Your task to perform on an android device: Set an alarm for 12pm Image 0: 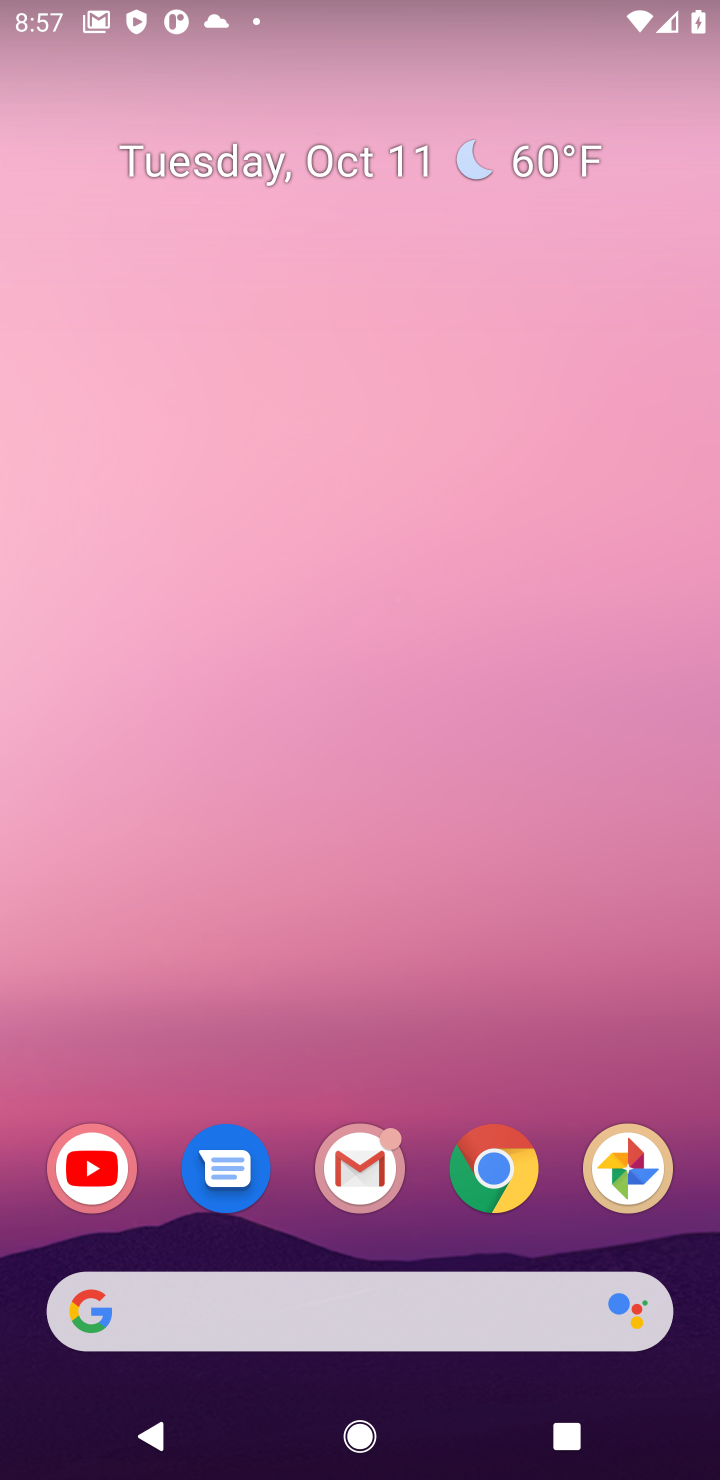
Step 0: press home button
Your task to perform on an android device: Set an alarm for 12pm Image 1: 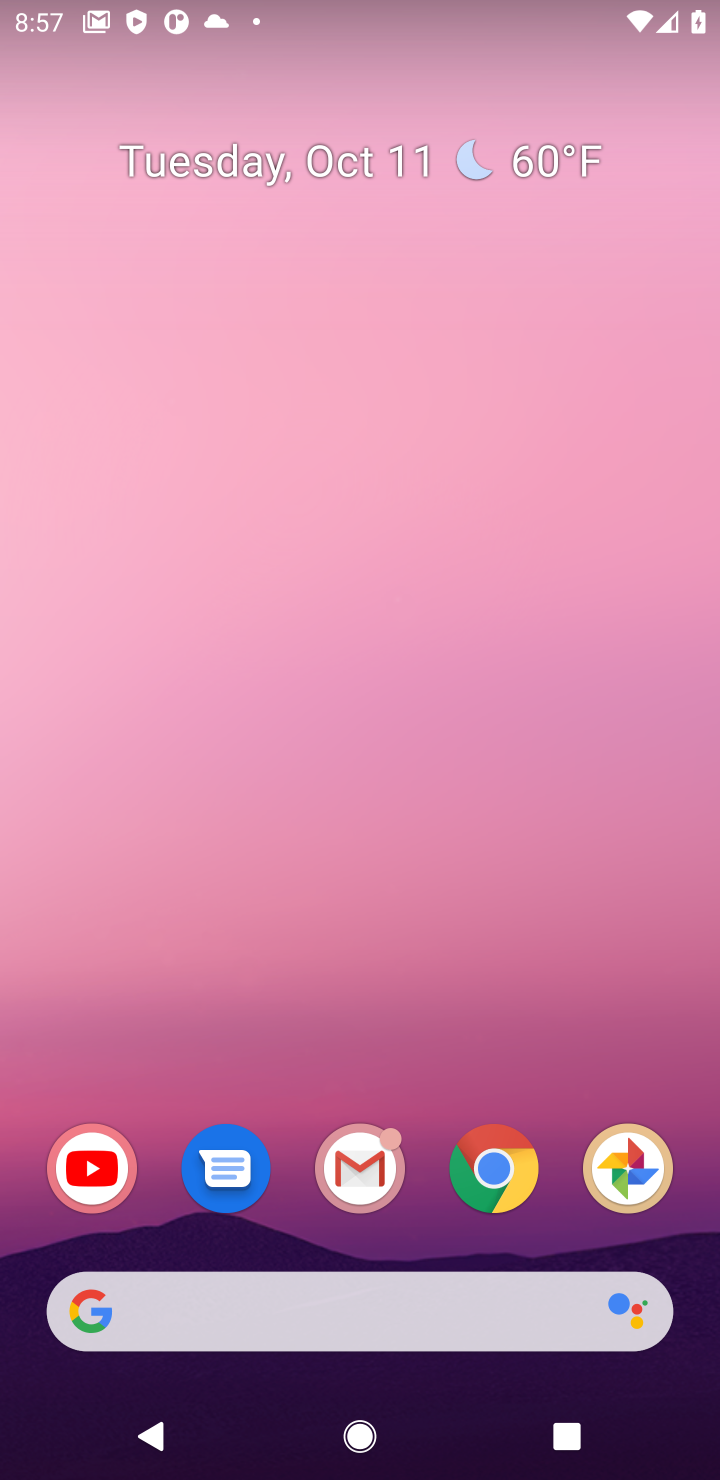
Step 1: drag from (295, 1029) to (363, 623)
Your task to perform on an android device: Set an alarm for 12pm Image 2: 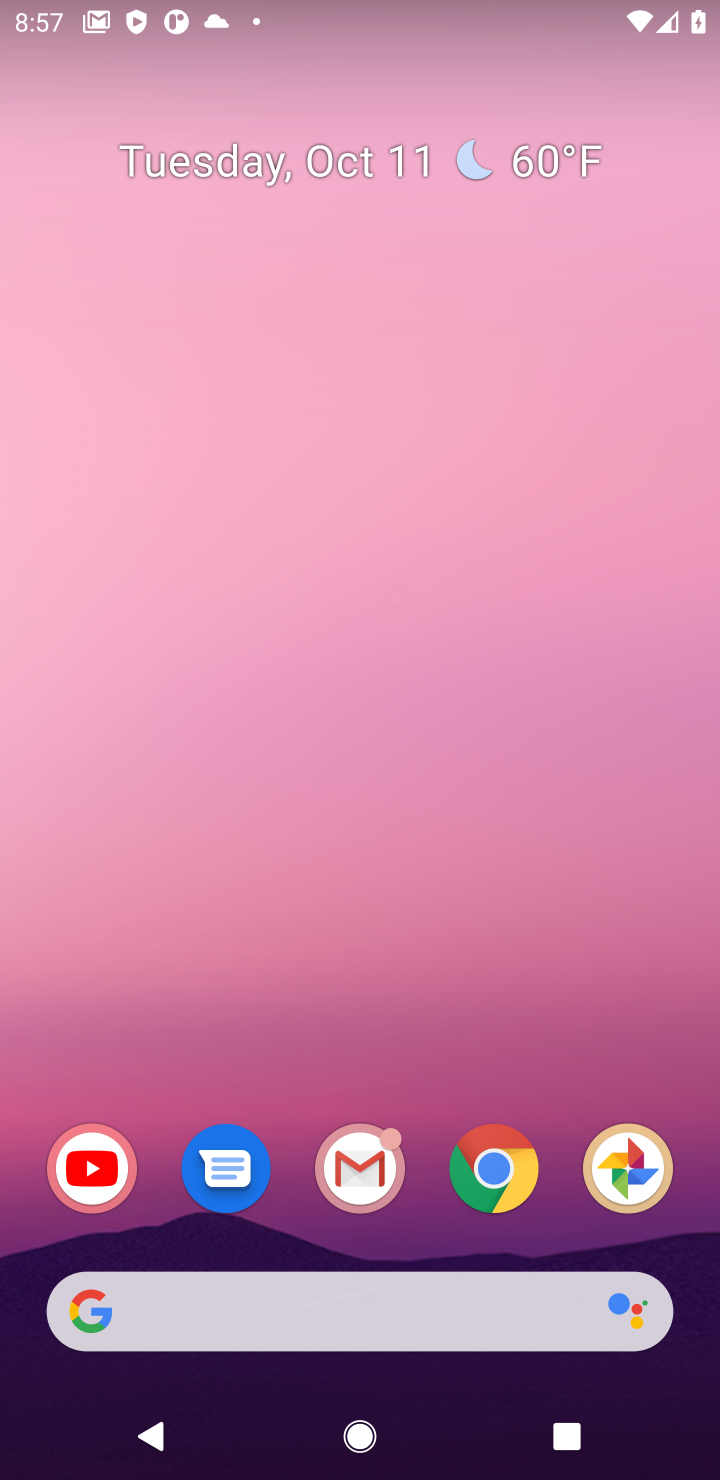
Step 2: drag from (254, 954) to (276, 382)
Your task to perform on an android device: Set an alarm for 12pm Image 3: 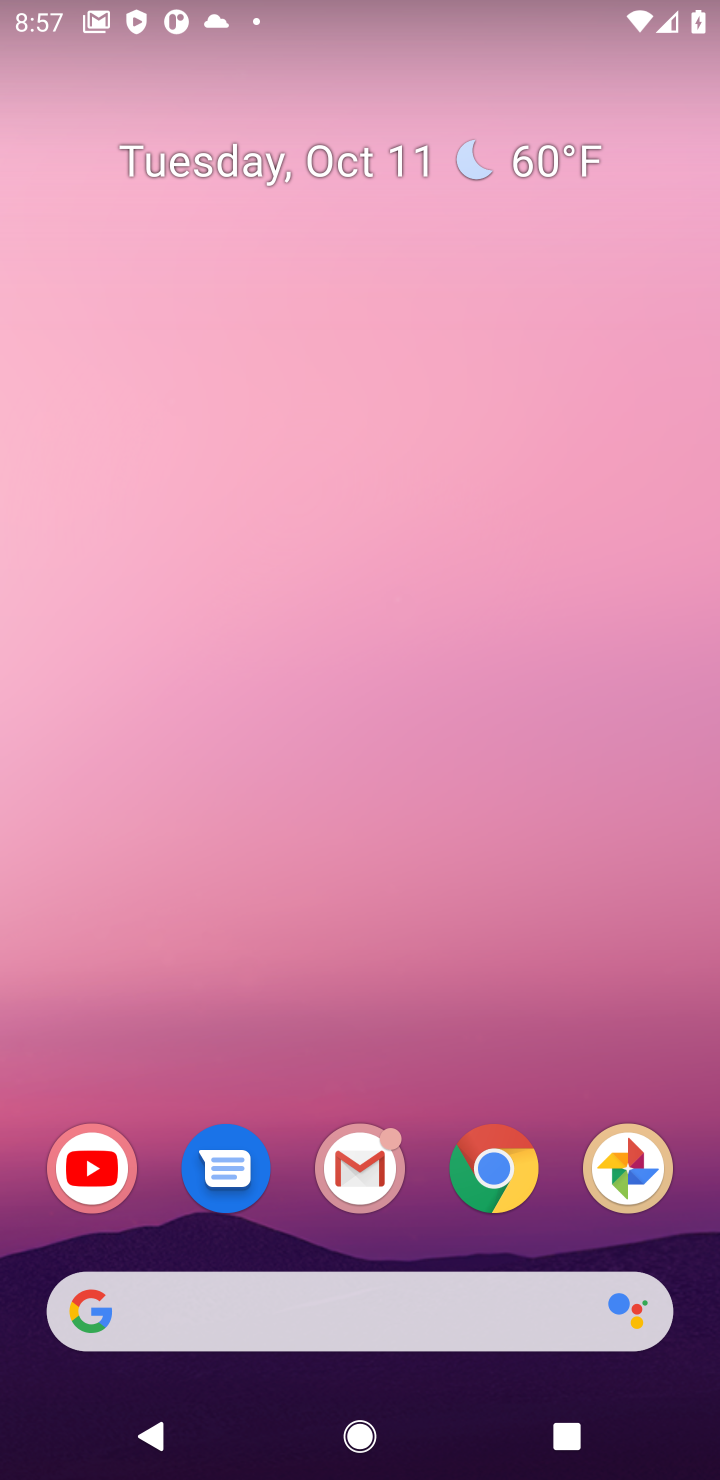
Step 3: drag from (210, 889) to (227, 143)
Your task to perform on an android device: Set an alarm for 12pm Image 4: 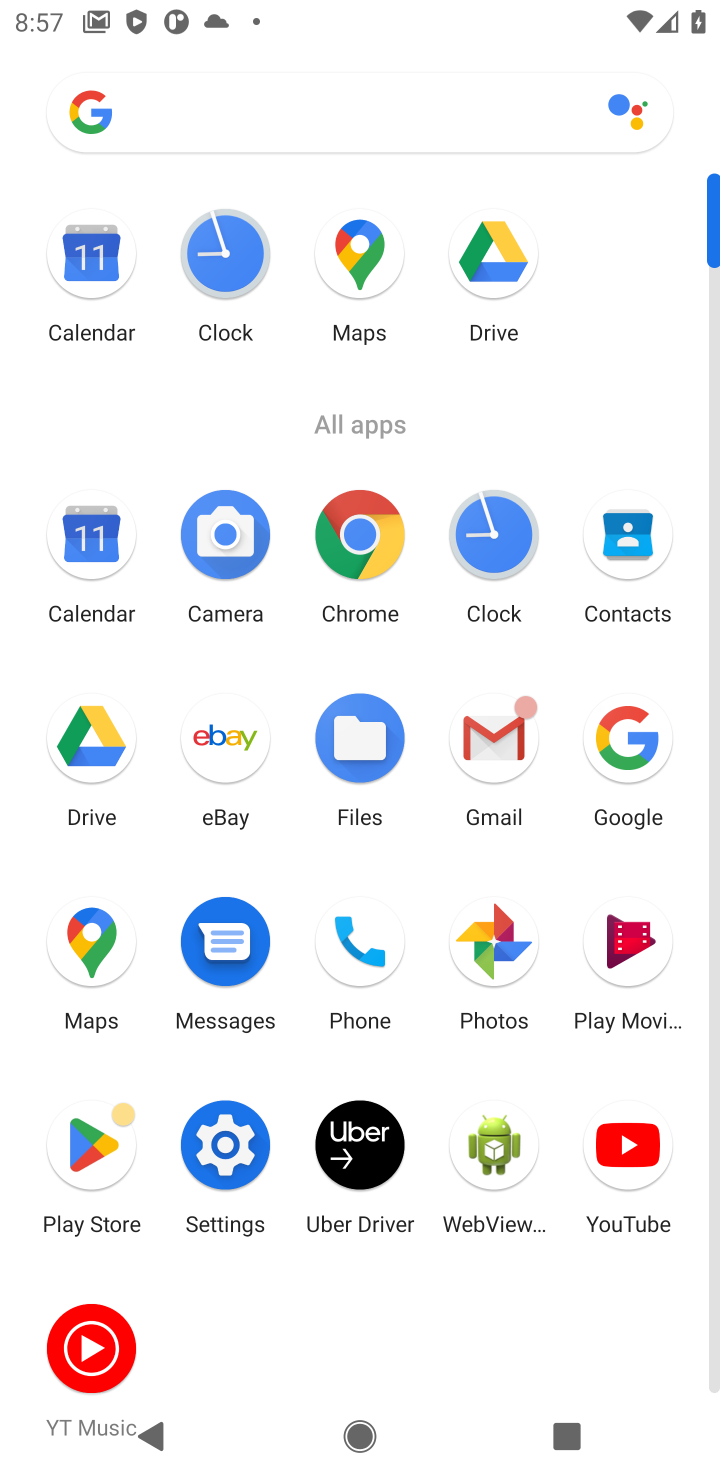
Step 4: click (485, 568)
Your task to perform on an android device: Set an alarm for 12pm Image 5: 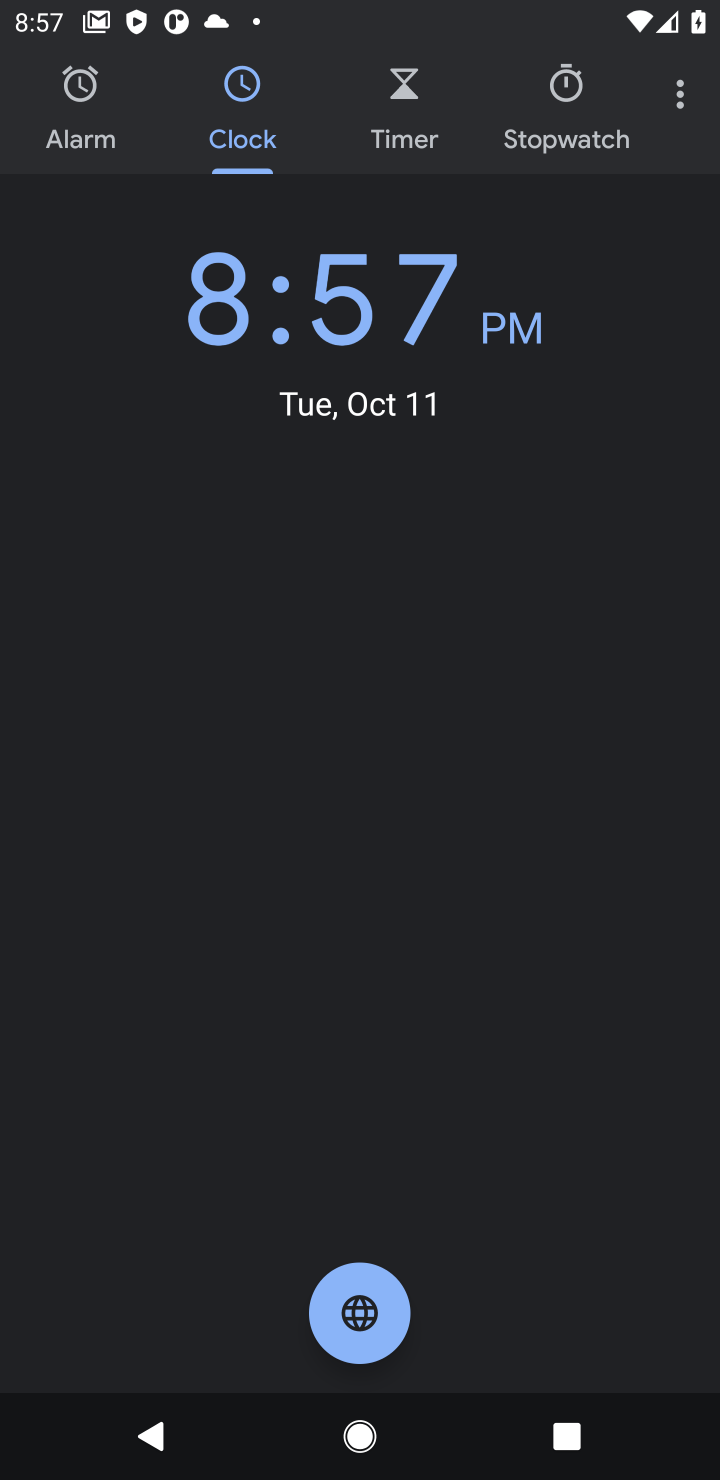
Step 5: click (64, 127)
Your task to perform on an android device: Set an alarm for 12pm Image 6: 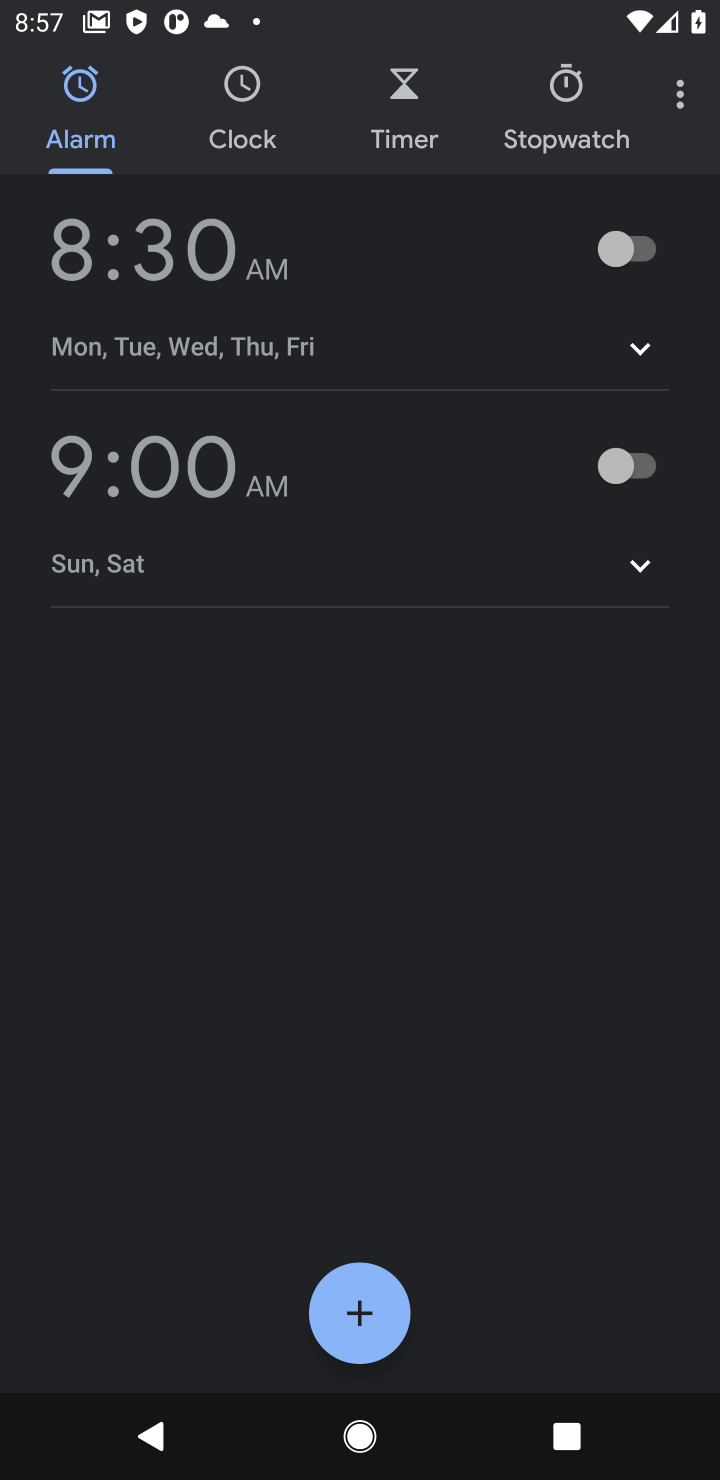
Step 6: click (634, 355)
Your task to perform on an android device: Set an alarm for 12pm Image 7: 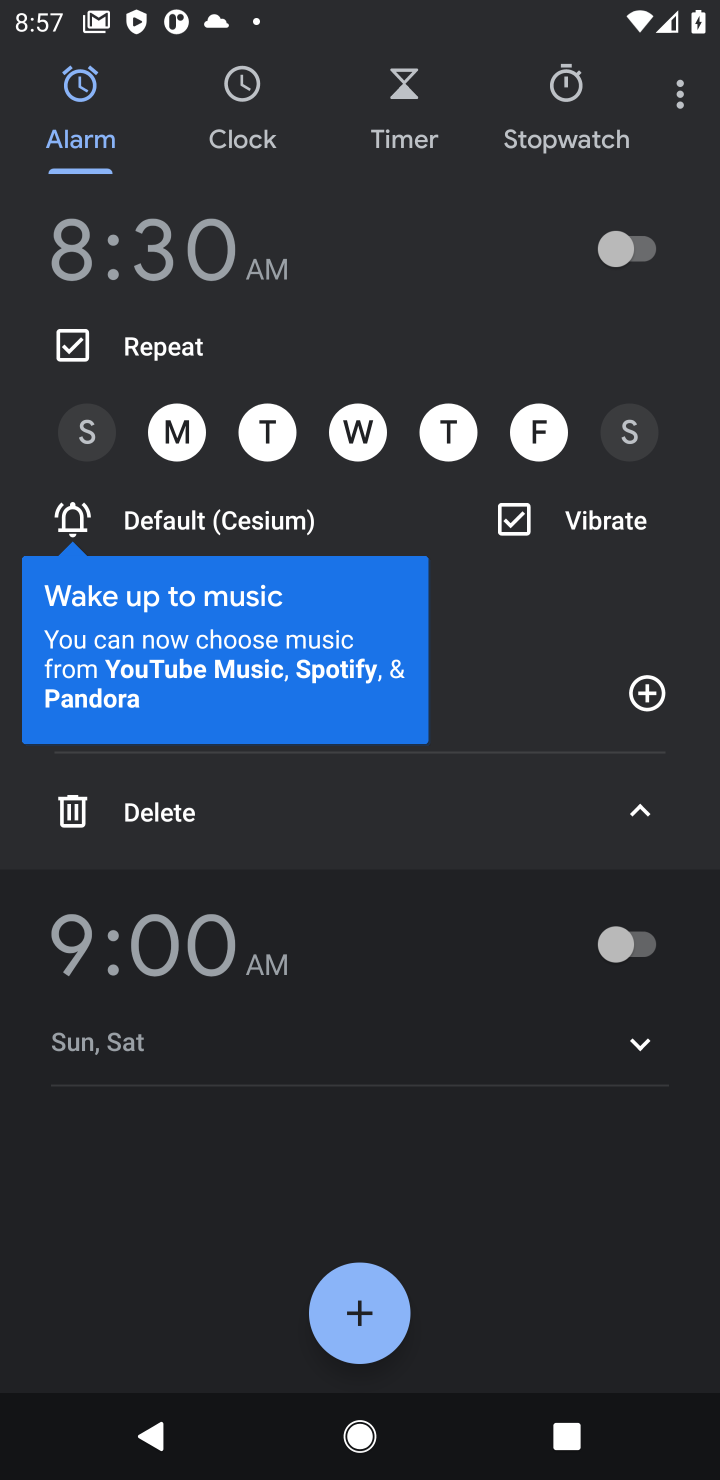
Step 7: click (192, 941)
Your task to perform on an android device: Set an alarm for 12pm Image 8: 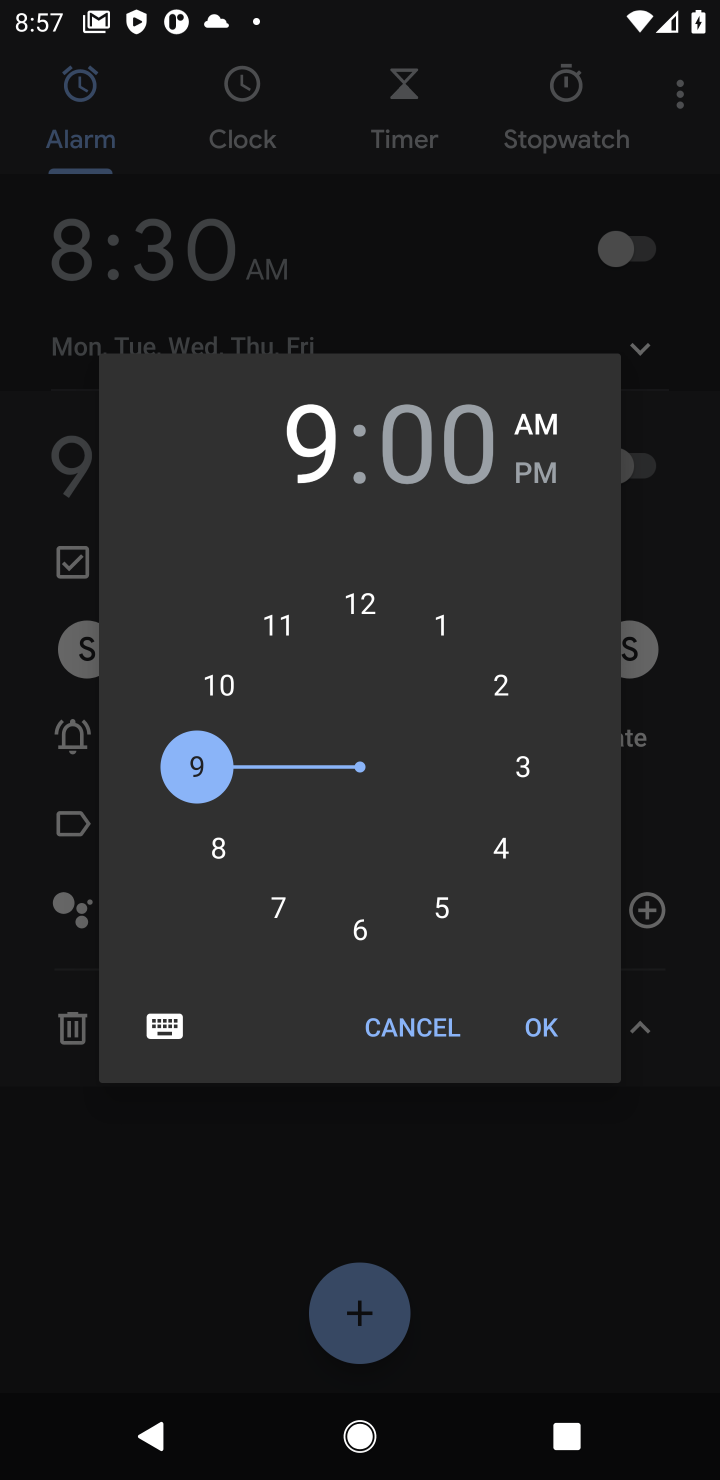
Step 8: click (360, 599)
Your task to perform on an android device: Set an alarm for 12pm Image 9: 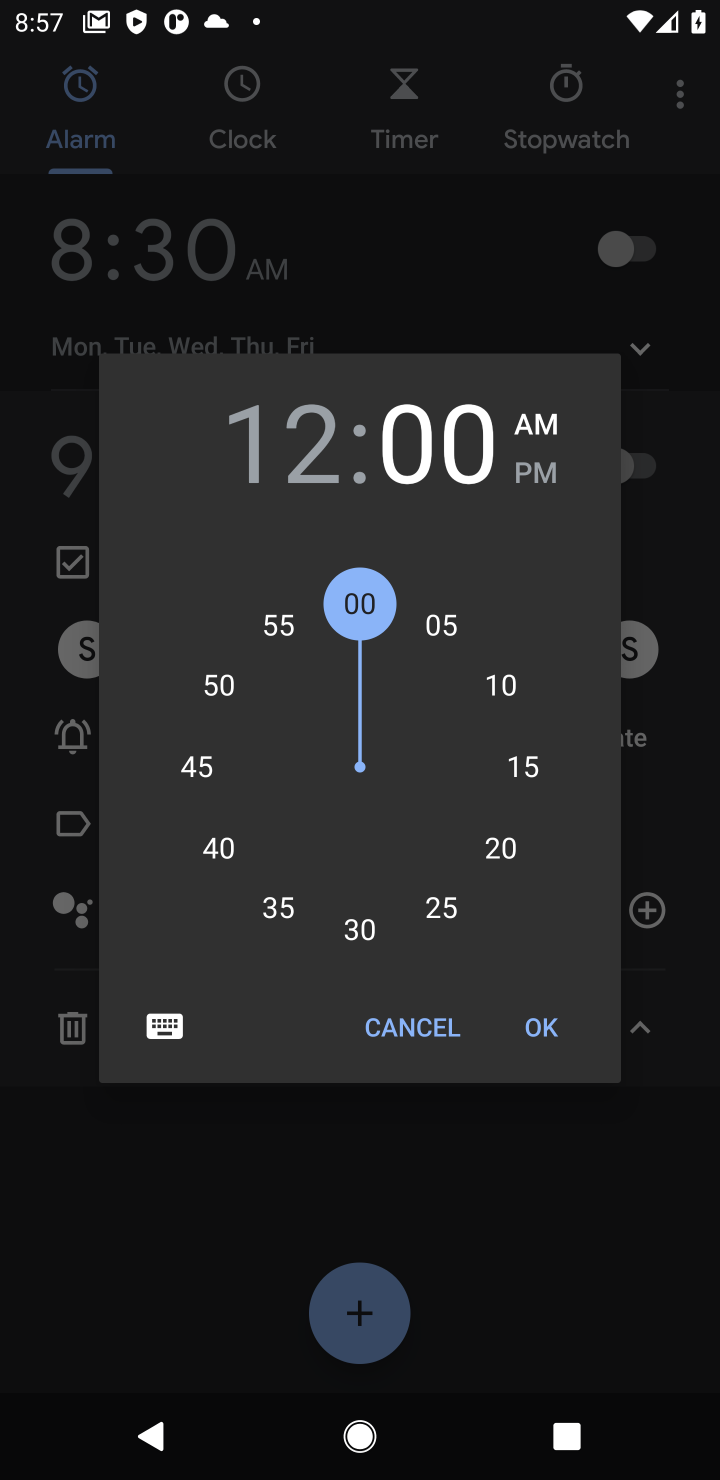
Step 9: click (519, 482)
Your task to perform on an android device: Set an alarm for 12pm Image 10: 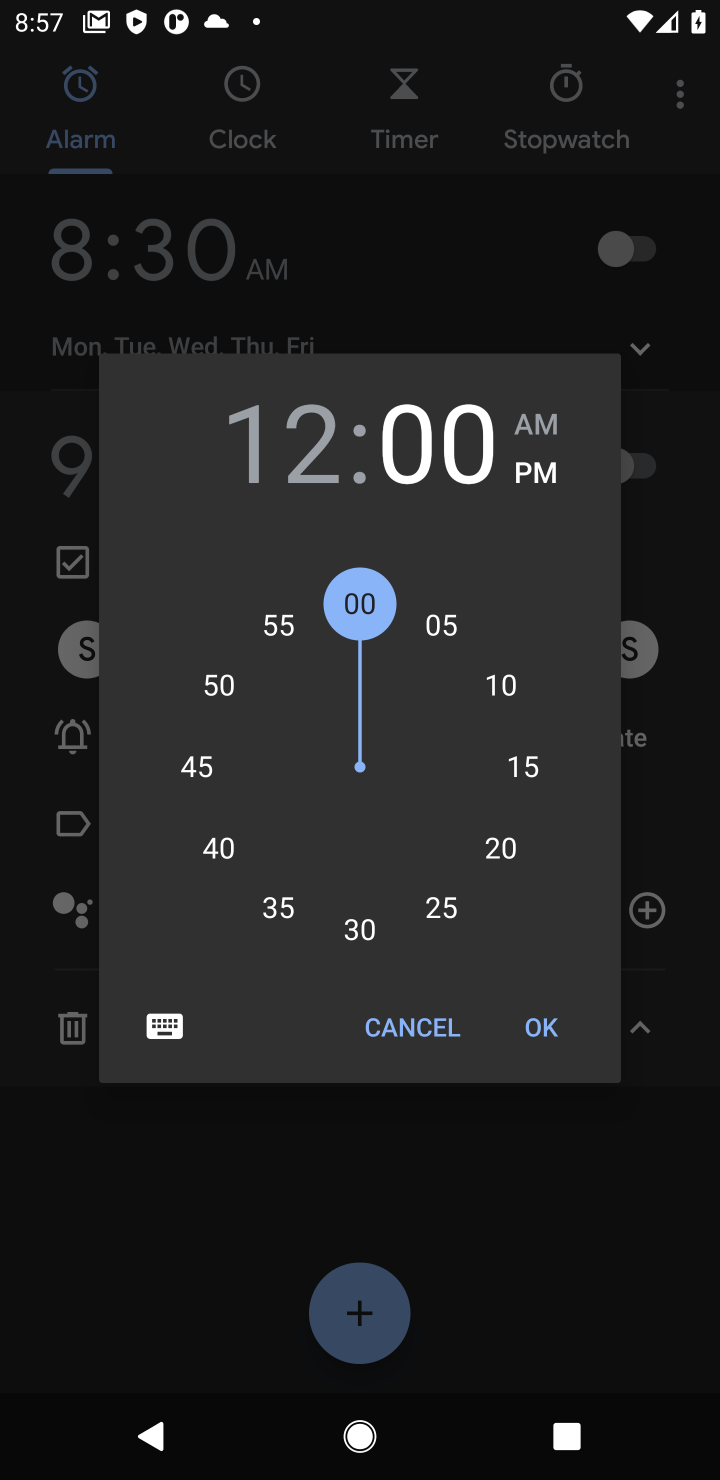
Step 10: click (546, 1037)
Your task to perform on an android device: Set an alarm for 12pm Image 11: 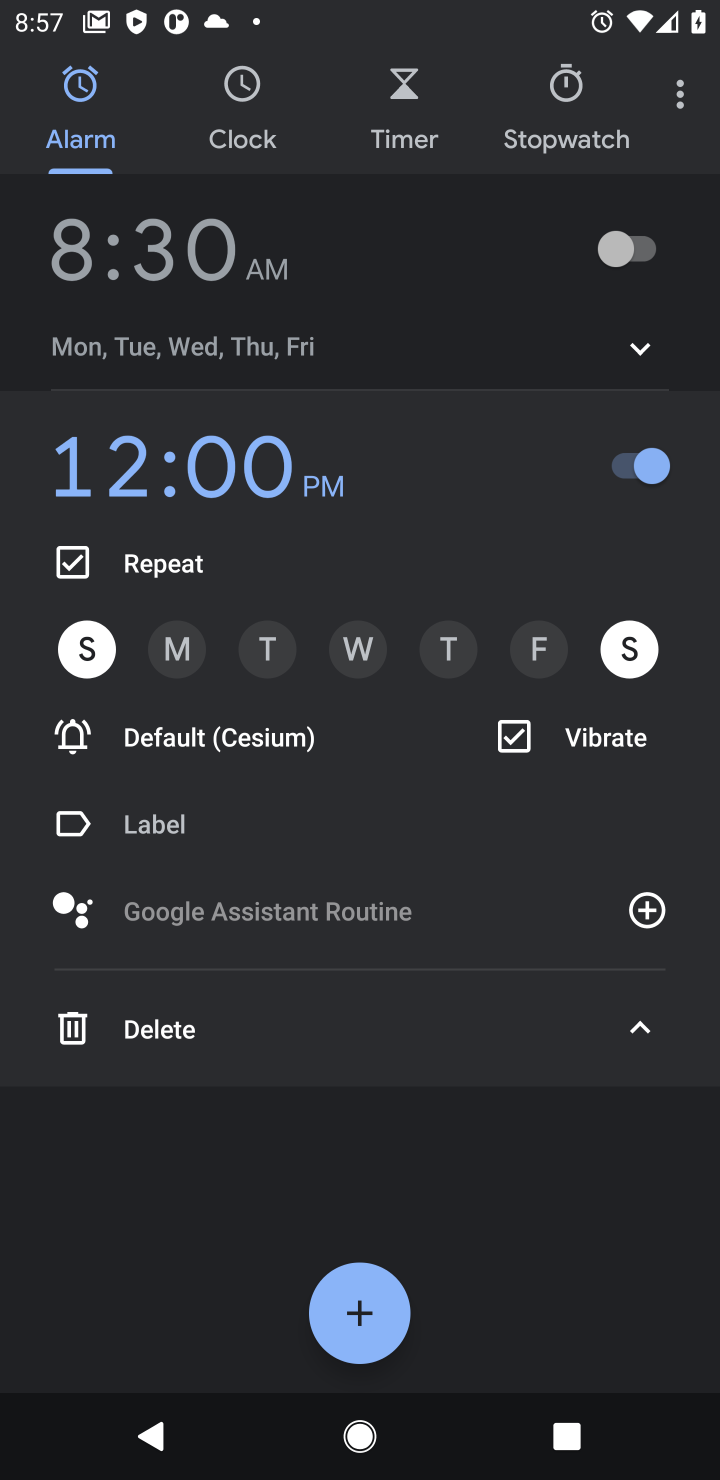
Step 11: click (211, 256)
Your task to perform on an android device: Set an alarm for 12pm Image 12: 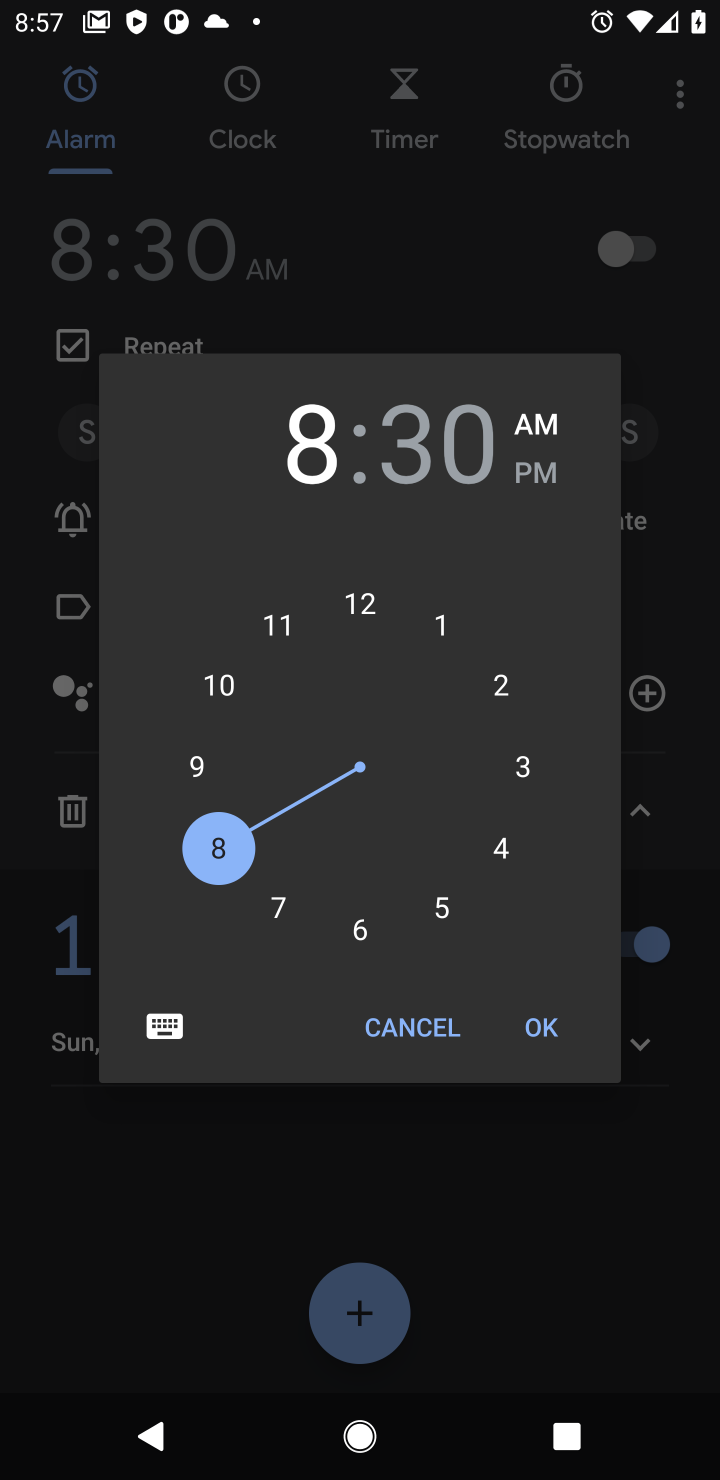
Step 12: click (362, 612)
Your task to perform on an android device: Set an alarm for 12pm Image 13: 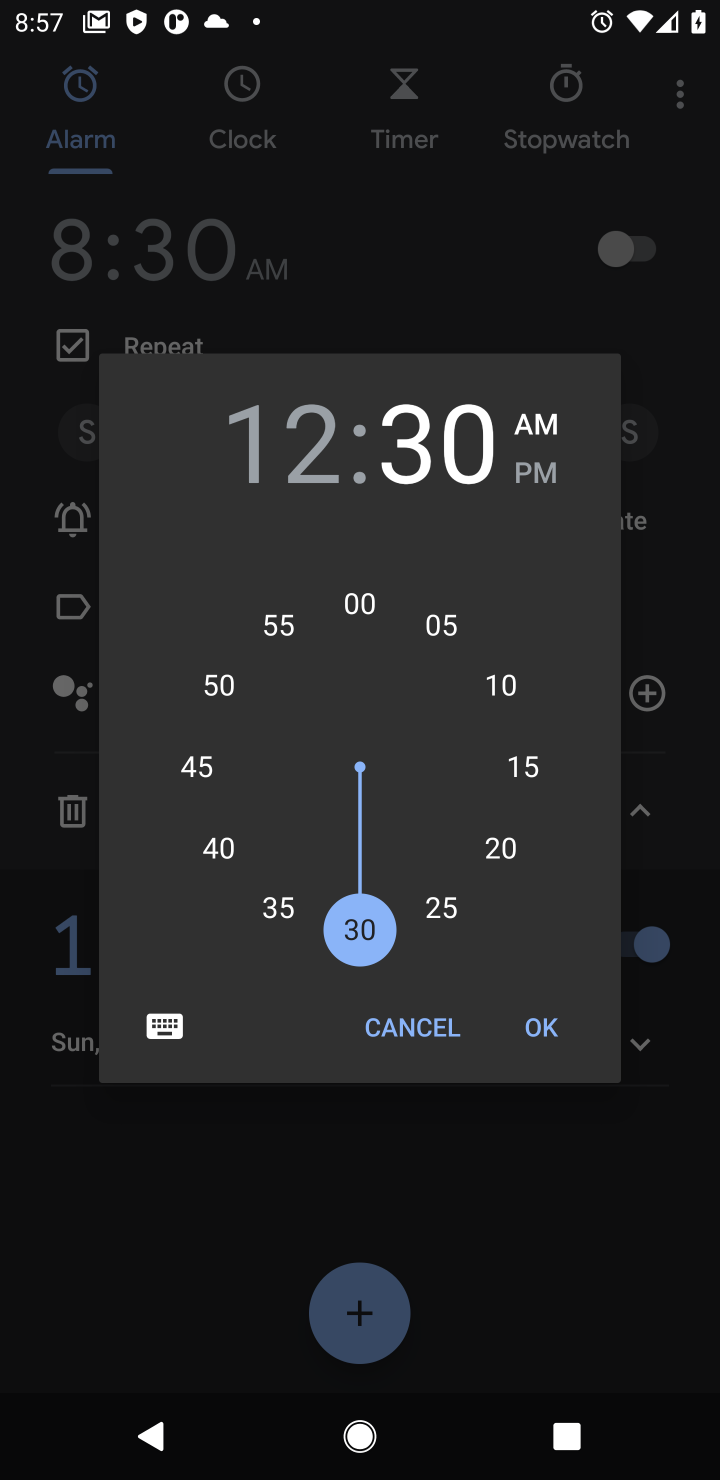
Step 13: click (353, 590)
Your task to perform on an android device: Set an alarm for 12pm Image 14: 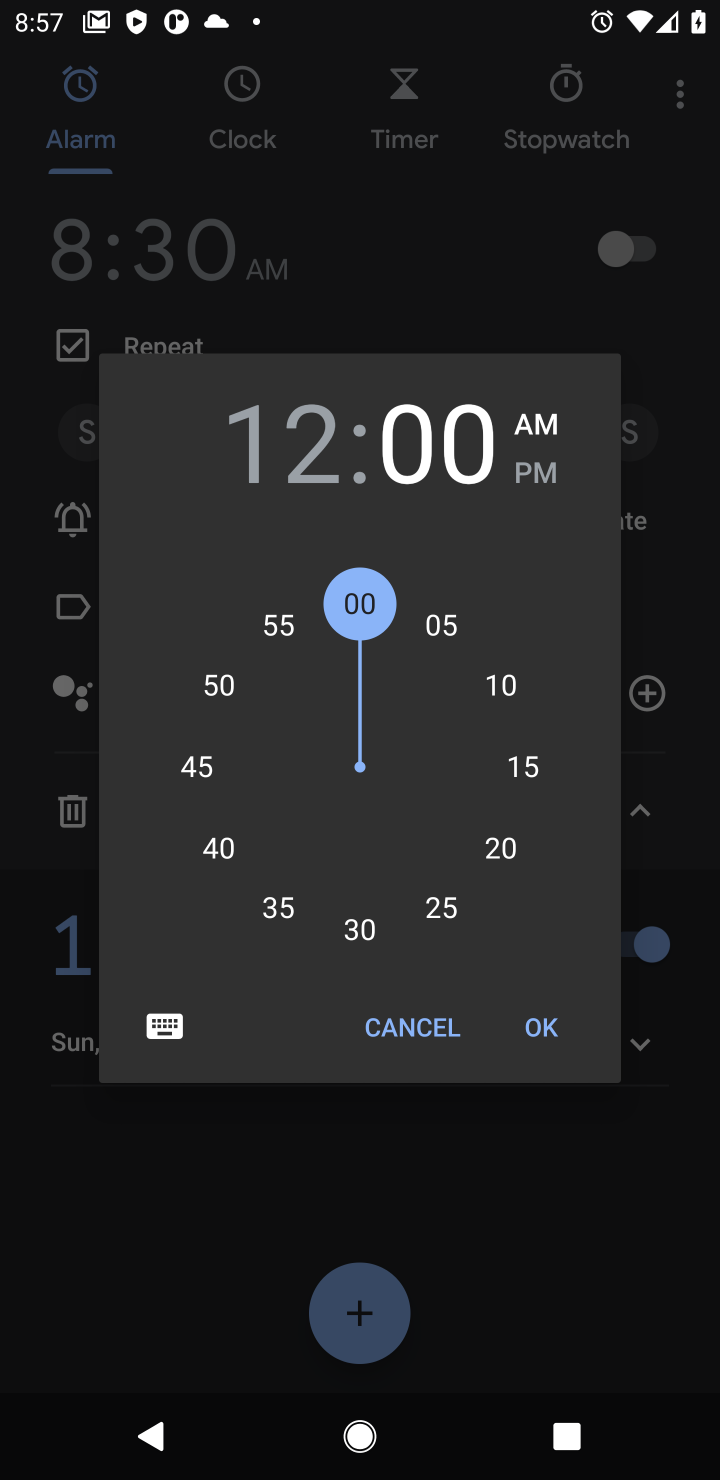
Step 14: click (541, 482)
Your task to perform on an android device: Set an alarm for 12pm Image 15: 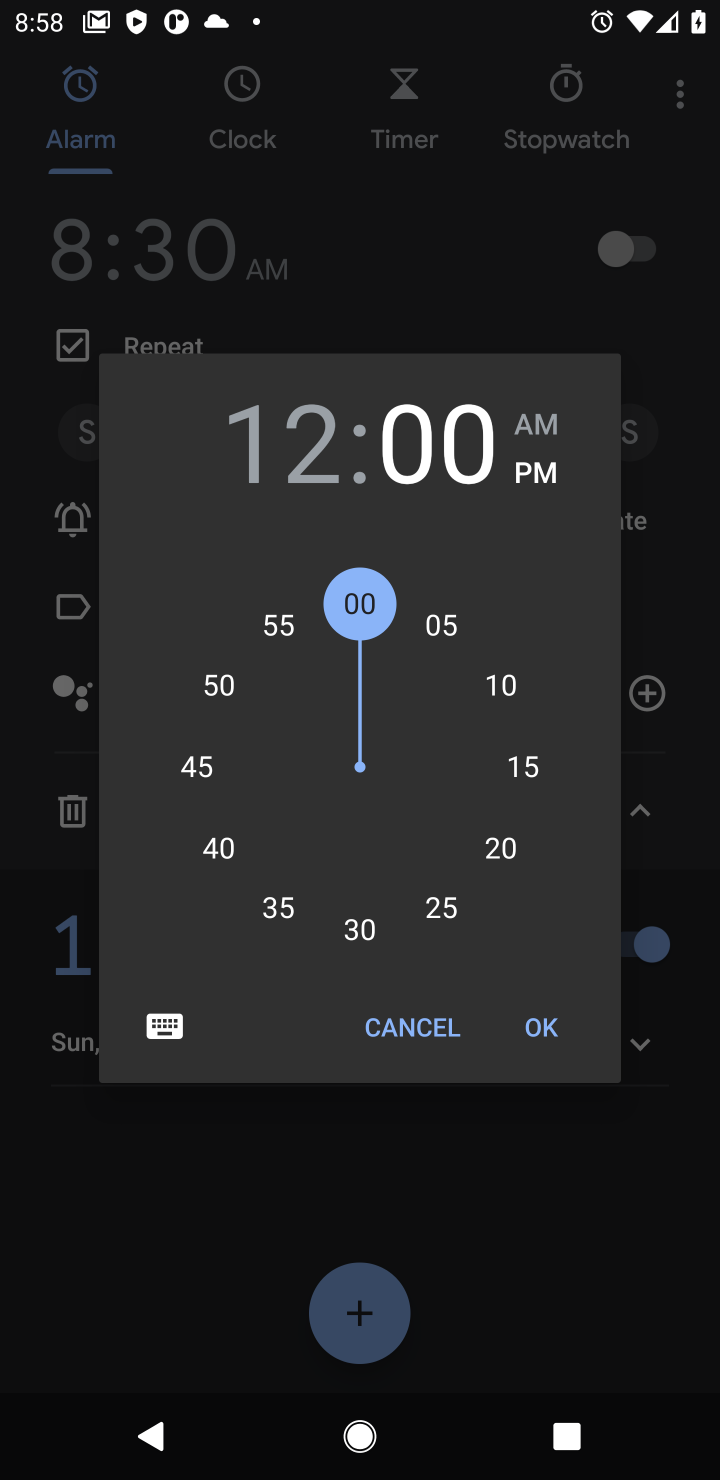
Step 15: click (545, 1049)
Your task to perform on an android device: Set an alarm for 12pm Image 16: 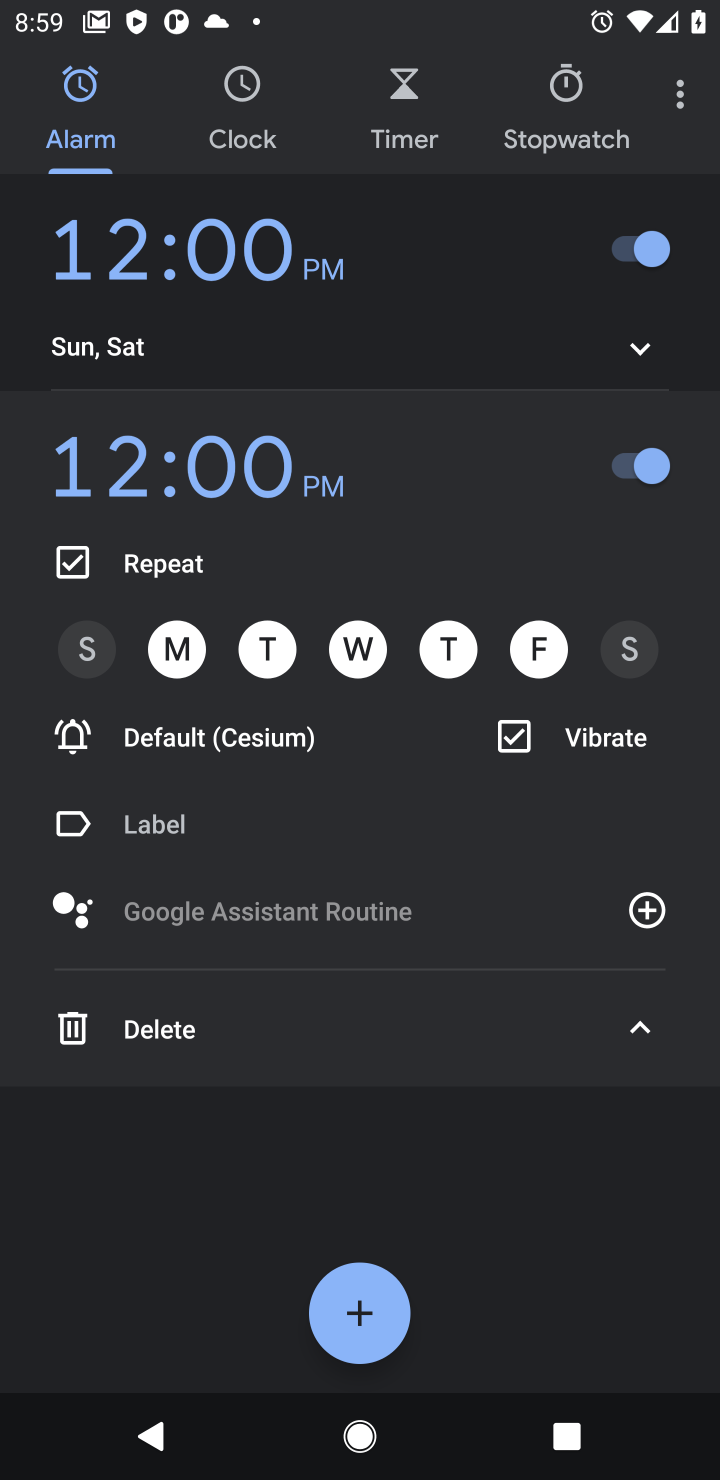
Step 16: task complete